Your task to perform on an android device: open app "Move to iOS" Image 0: 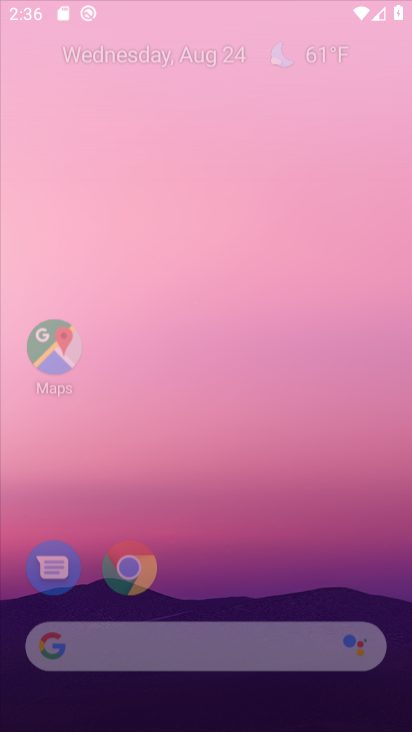
Step 0: drag from (272, 414) to (318, 78)
Your task to perform on an android device: open app "Move to iOS" Image 1: 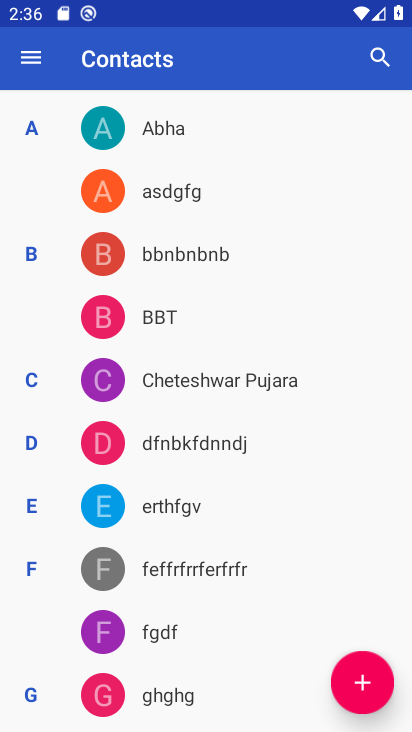
Step 1: press back button
Your task to perform on an android device: open app "Move to iOS" Image 2: 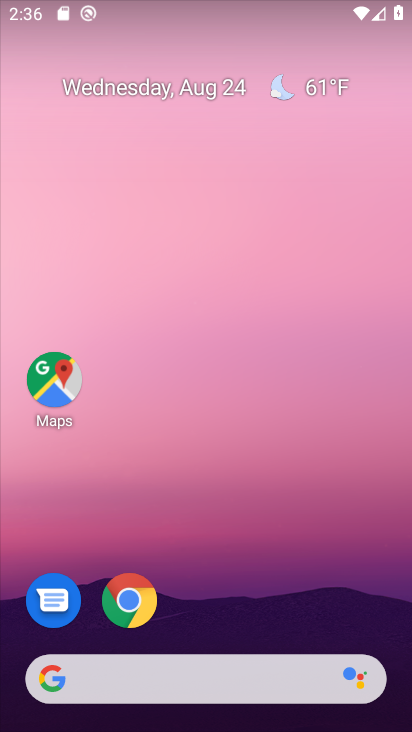
Step 2: drag from (232, 606) to (290, 1)
Your task to perform on an android device: open app "Move to iOS" Image 3: 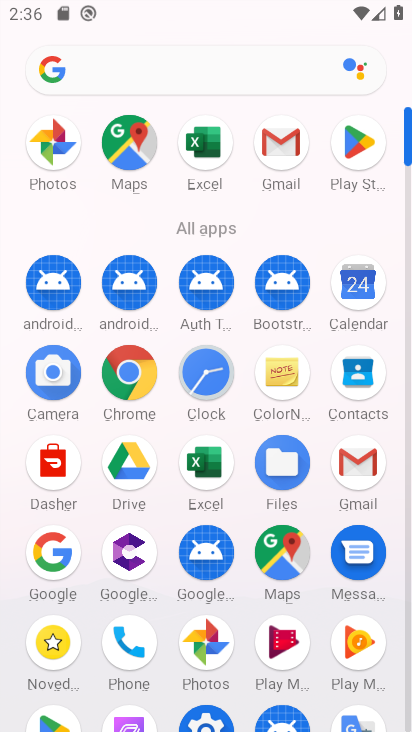
Step 3: click (365, 147)
Your task to perform on an android device: open app "Move to iOS" Image 4: 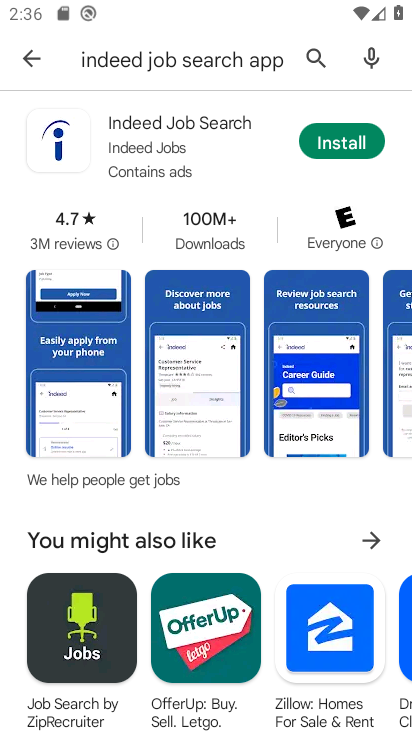
Step 4: click (319, 54)
Your task to perform on an android device: open app "Move to iOS" Image 5: 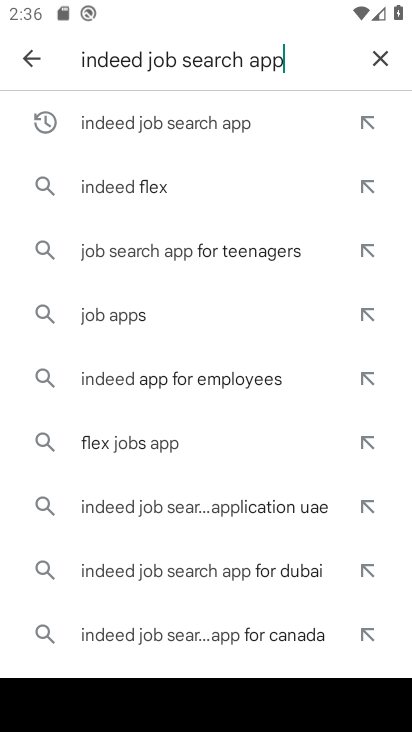
Step 5: click (375, 51)
Your task to perform on an android device: open app "Move to iOS" Image 6: 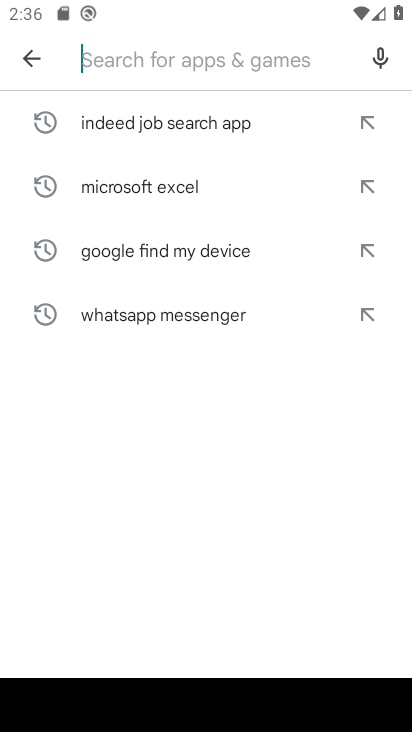
Step 6: click (181, 54)
Your task to perform on an android device: open app "Move to iOS" Image 7: 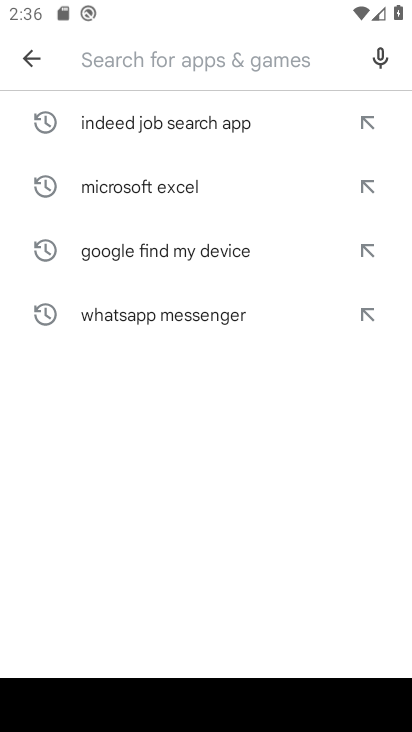
Step 7: click (146, 64)
Your task to perform on an android device: open app "Move to iOS" Image 8: 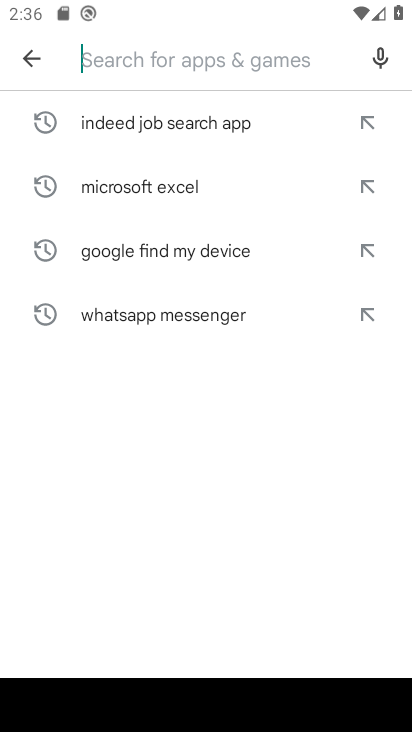
Step 8: type "Move to iOS"
Your task to perform on an android device: open app "Move to iOS" Image 9: 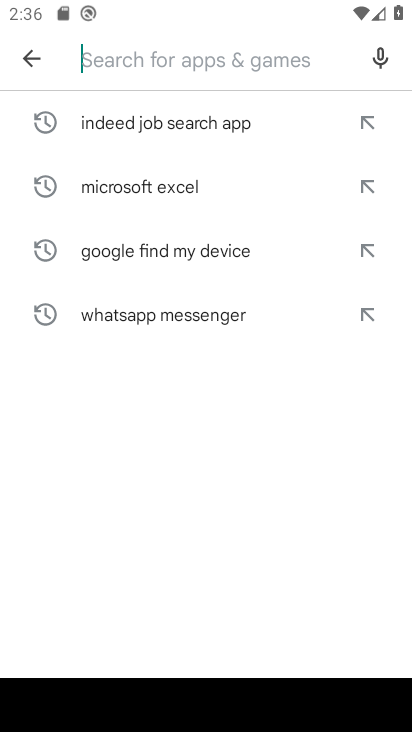
Step 9: click (159, 482)
Your task to perform on an android device: open app "Move to iOS" Image 10: 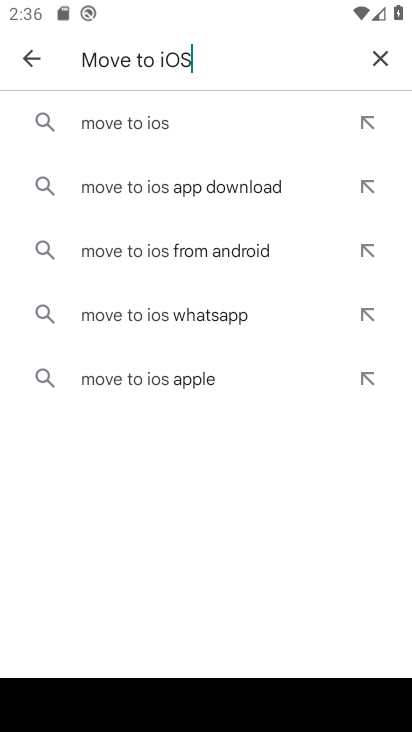
Step 10: click (176, 131)
Your task to perform on an android device: open app "Move to iOS" Image 11: 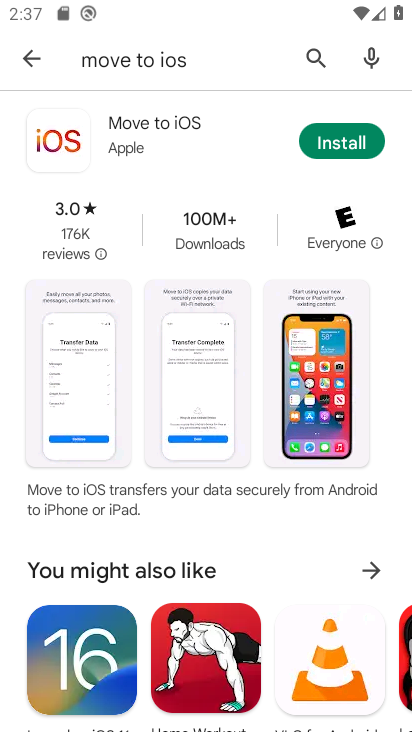
Step 11: task complete